Your task to perform on an android device: Open the stopwatch Image 0: 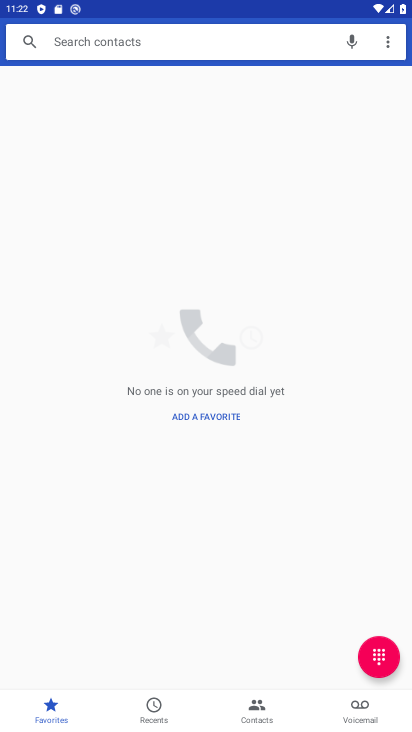
Step 0: press home button
Your task to perform on an android device: Open the stopwatch Image 1: 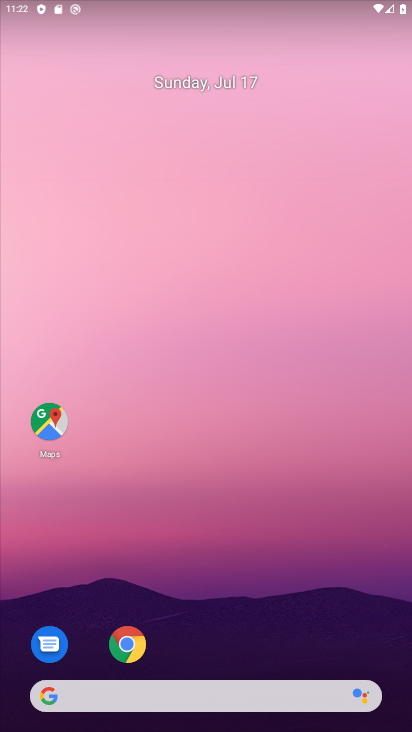
Step 1: drag from (381, 703) to (288, 51)
Your task to perform on an android device: Open the stopwatch Image 2: 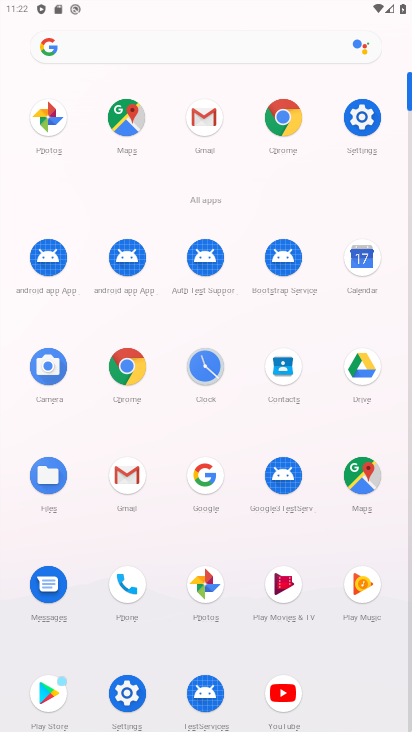
Step 2: click (202, 362)
Your task to perform on an android device: Open the stopwatch Image 3: 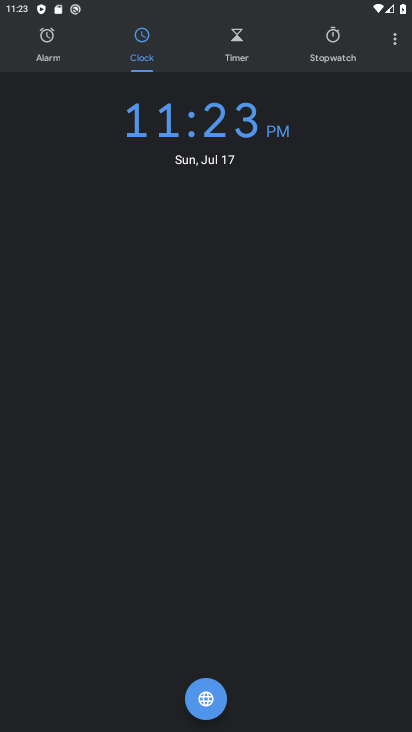
Step 3: click (319, 46)
Your task to perform on an android device: Open the stopwatch Image 4: 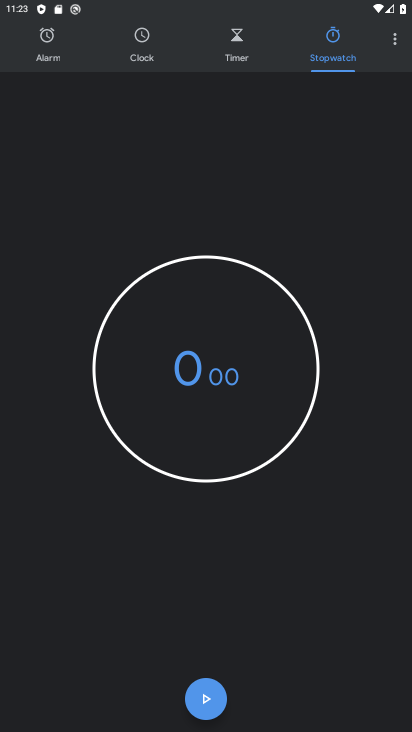
Step 4: task complete